Your task to perform on an android device: Go to location settings Image 0: 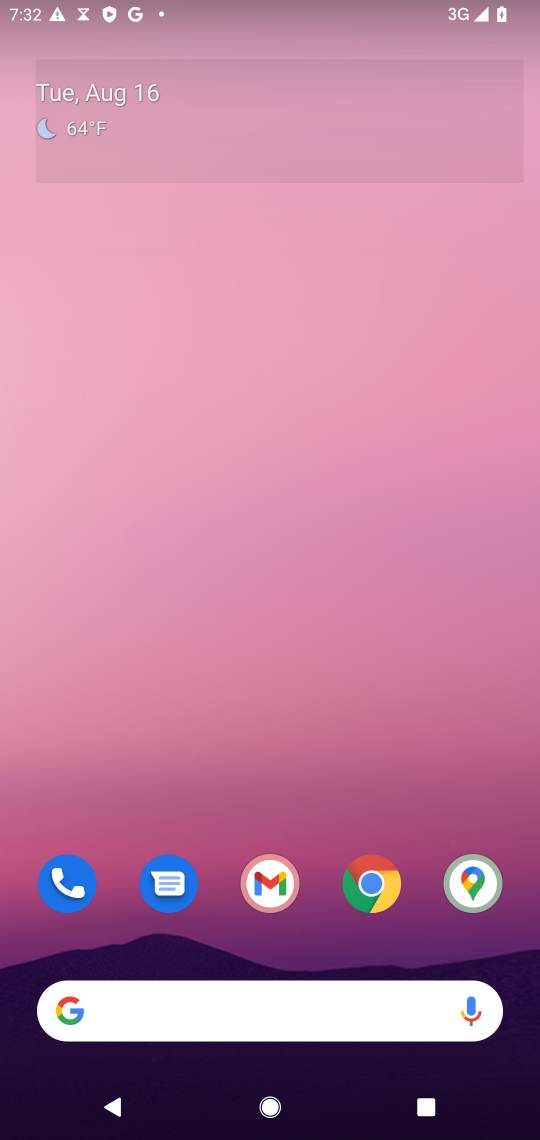
Step 0: drag from (274, 975) to (332, 156)
Your task to perform on an android device: Go to location settings Image 1: 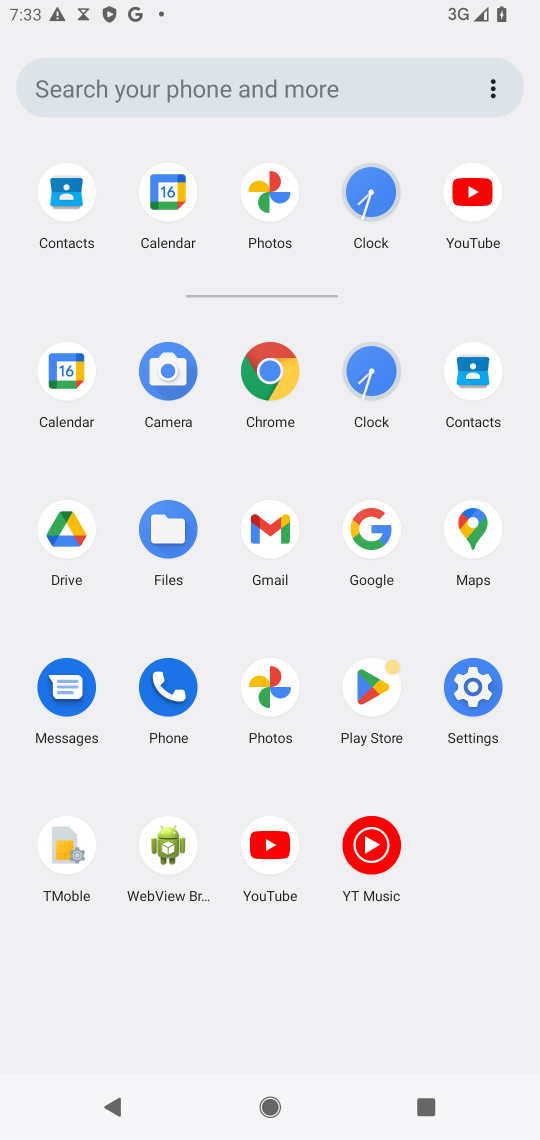
Step 1: click (470, 687)
Your task to perform on an android device: Go to location settings Image 2: 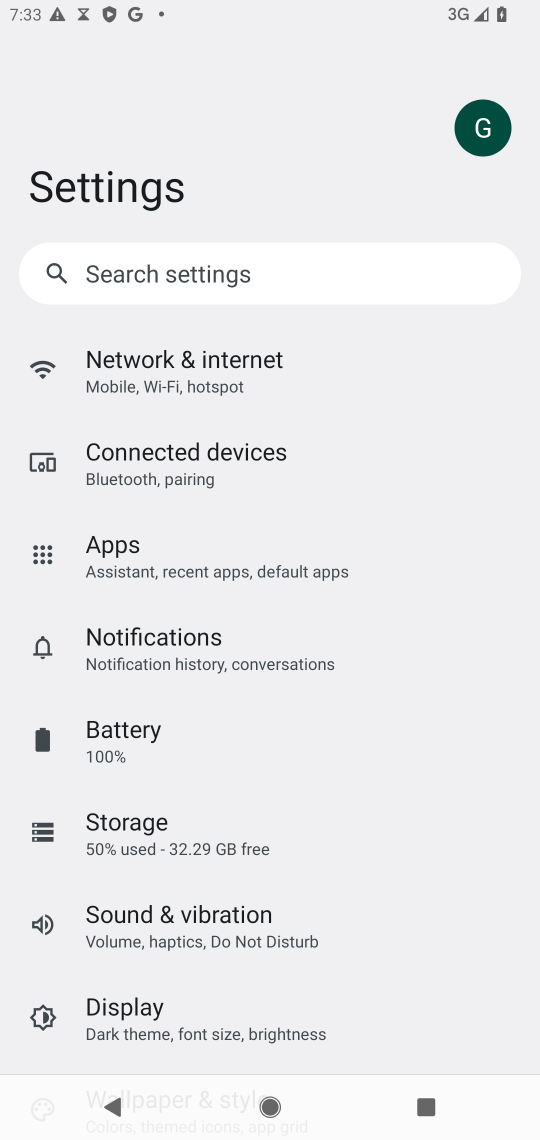
Step 2: drag from (234, 837) to (312, 679)
Your task to perform on an android device: Go to location settings Image 3: 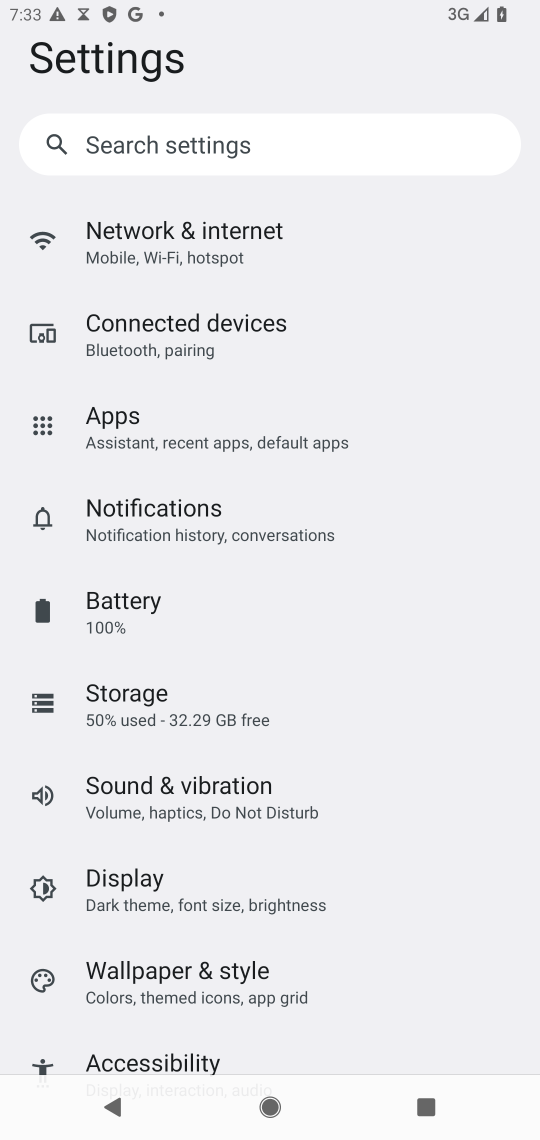
Step 3: drag from (243, 857) to (297, 699)
Your task to perform on an android device: Go to location settings Image 4: 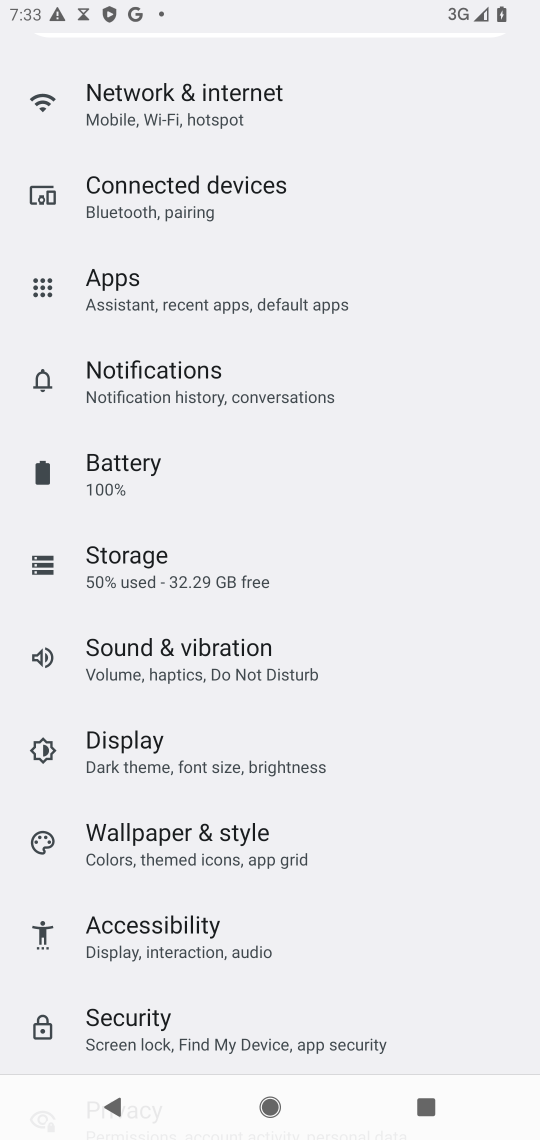
Step 4: drag from (236, 861) to (326, 725)
Your task to perform on an android device: Go to location settings Image 5: 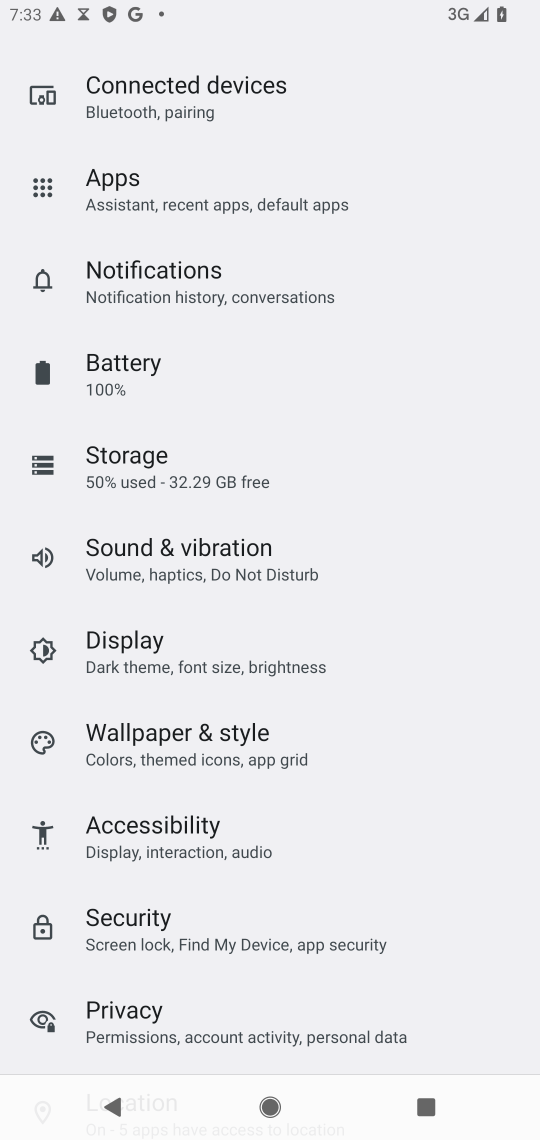
Step 5: drag from (181, 926) to (274, 803)
Your task to perform on an android device: Go to location settings Image 6: 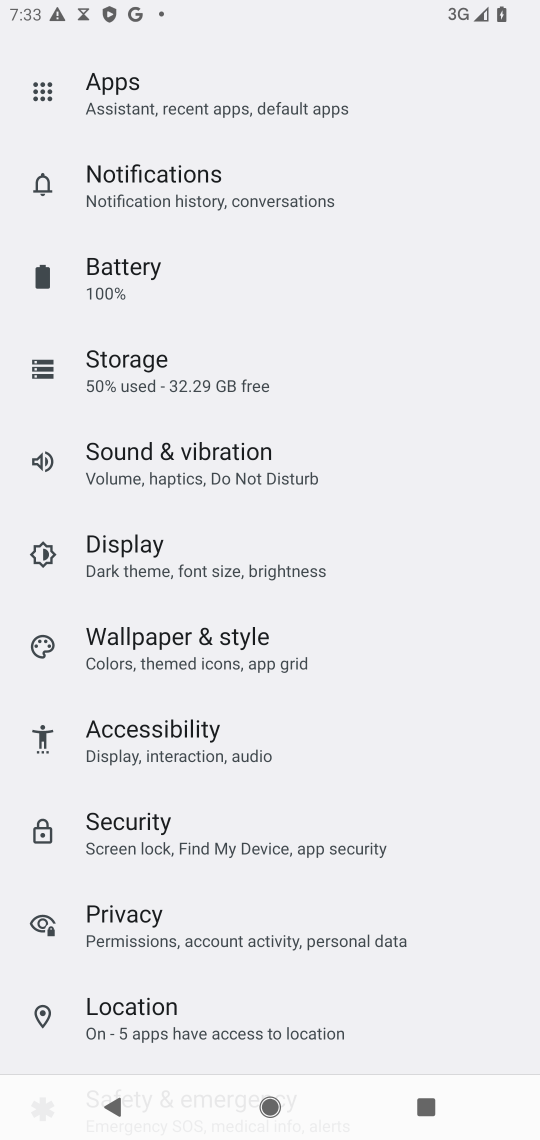
Step 6: drag from (207, 887) to (310, 734)
Your task to perform on an android device: Go to location settings Image 7: 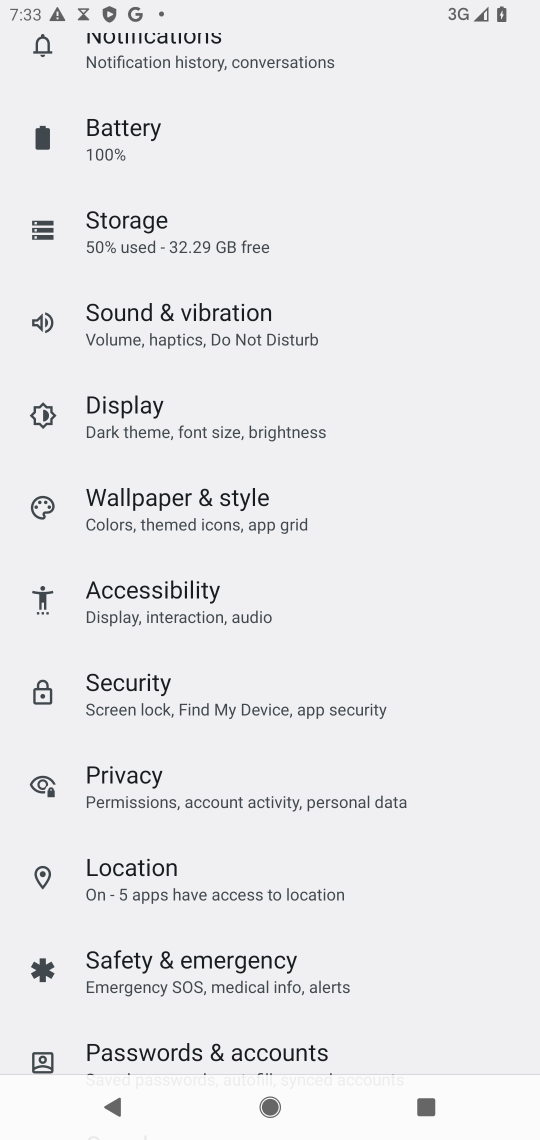
Step 7: click (198, 884)
Your task to perform on an android device: Go to location settings Image 8: 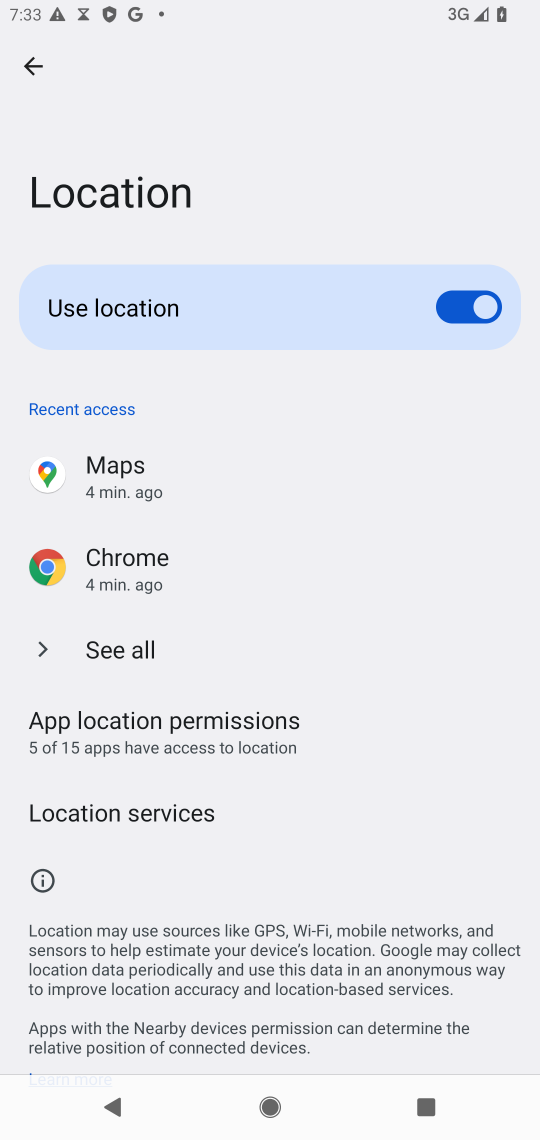
Step 8: task complete